Your task to perform on an android device: show emergency info Image 0: 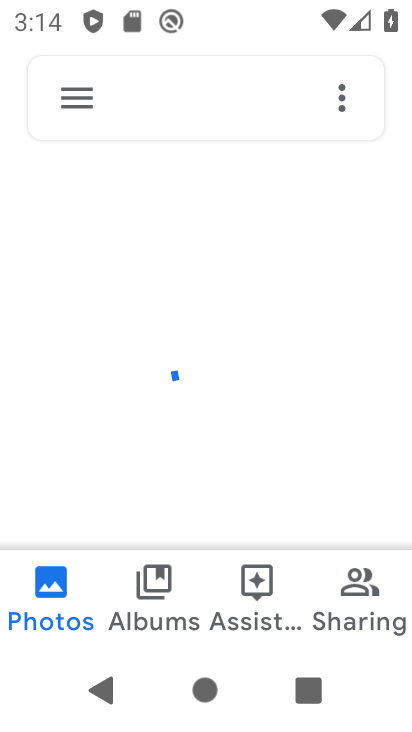
Step 0: press back button
Your task to perform on an android device: show emergency info Image 1: 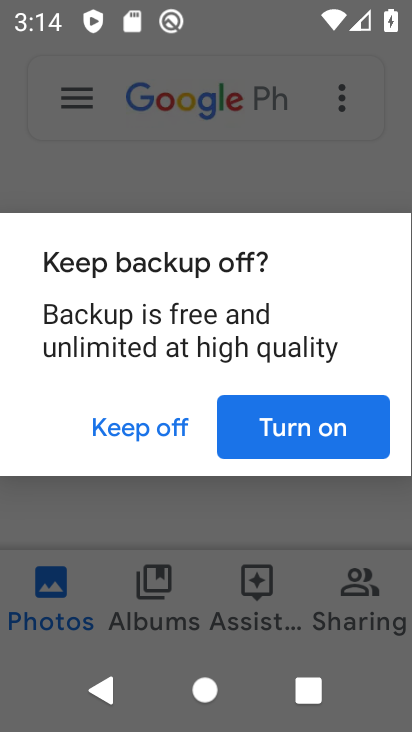
Step 1: press back button
Your task to perform on an android device: show emergency info Image 2: 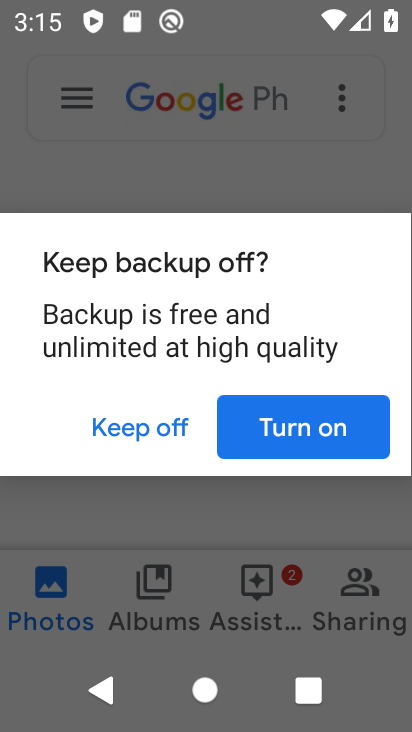
Step 2: press home button
Your task to perform on an android device: show emergency info Image 3: 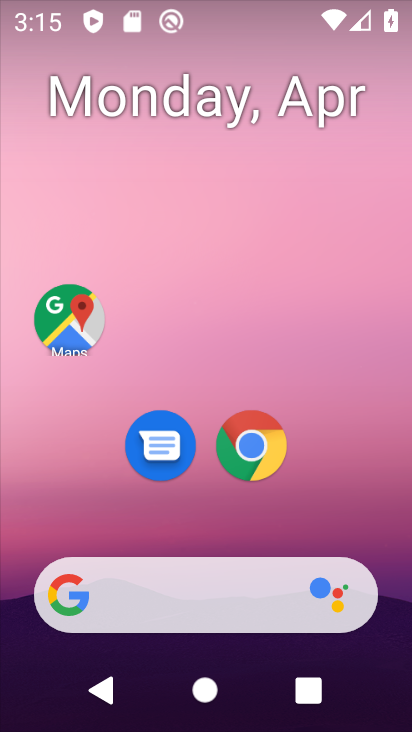
Step 3: drag from (228, 550) to (361, 40)
Your task to perform on an android device: show emergency info Image 4: 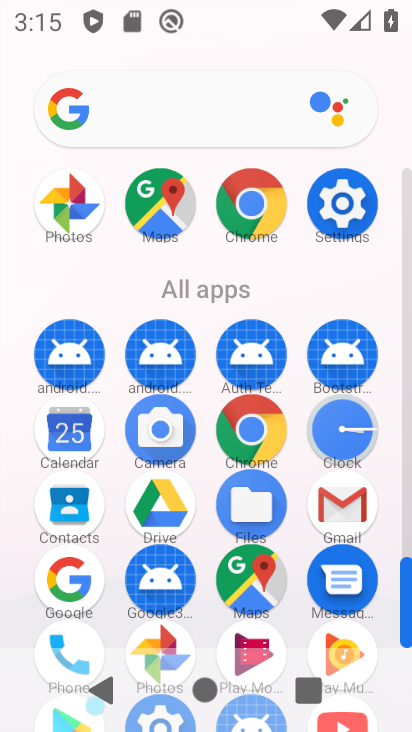
Step 4: click (350, 179)
Your task to perform on an android device: show emergency info Image 5: 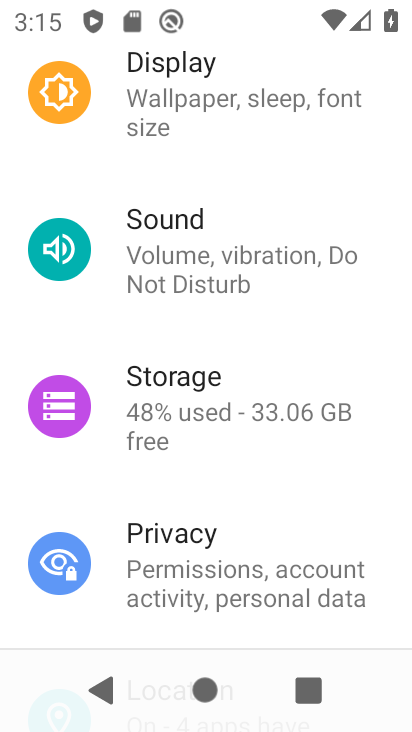
Step 5: drag from (271, 400) to (330, 181)
Your task to perform on an android device: show emergency info Image 6: 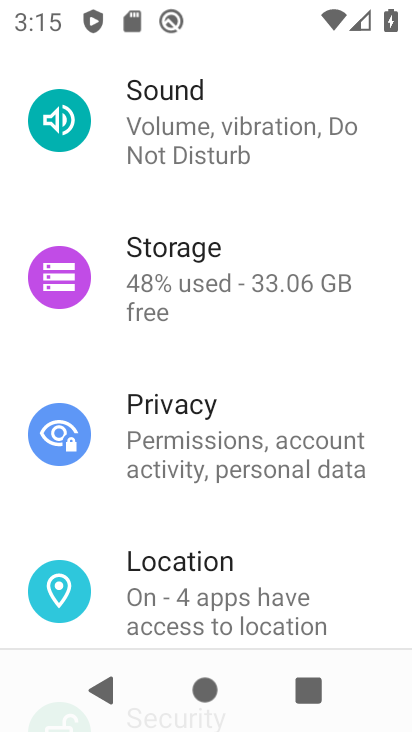
Step 6: drag from (280, 470) to (331, 258)
Your task to perform on an android device: show emergency info Image 7: 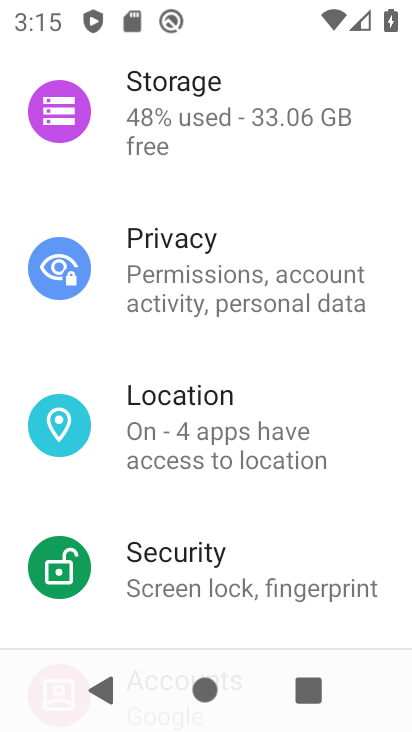
Step 7: drag from (242, 597) to (341, 155)
Your task to perform on an android device: show emergency info Image 8: 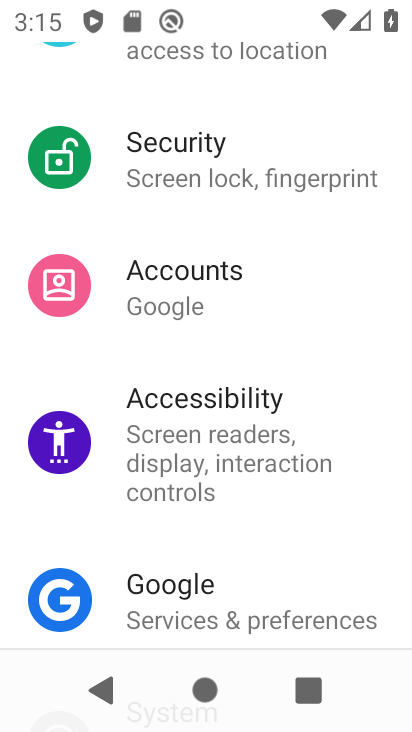
Step 8: drag from (251, 610) to (300, 309)
Your task to perform on an android device: show emergency info Image 9: 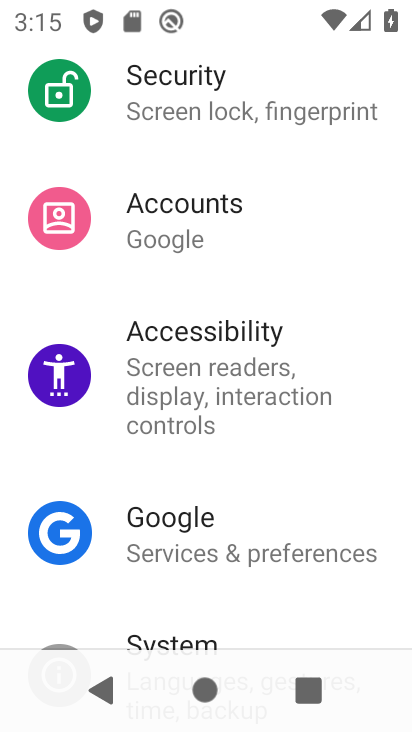
Step 9: drag from (262, 522) to (310, 251)
Your task to perform on an android device: show emergency info Image 10: 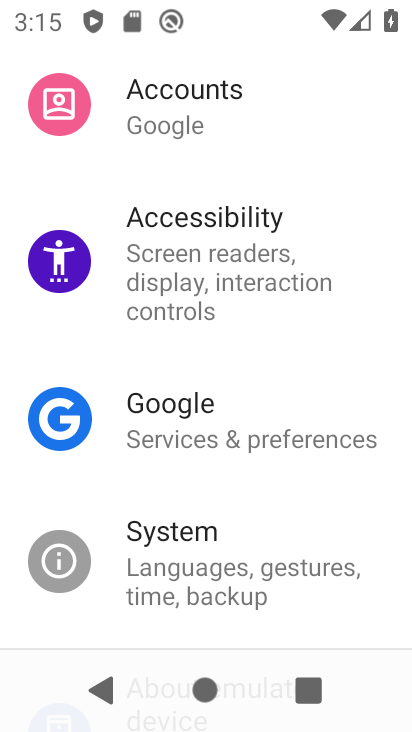
Step 10: drag from (219, 440) to (313, 114)
Your task to perform on an android device: show emergency info Image 11: 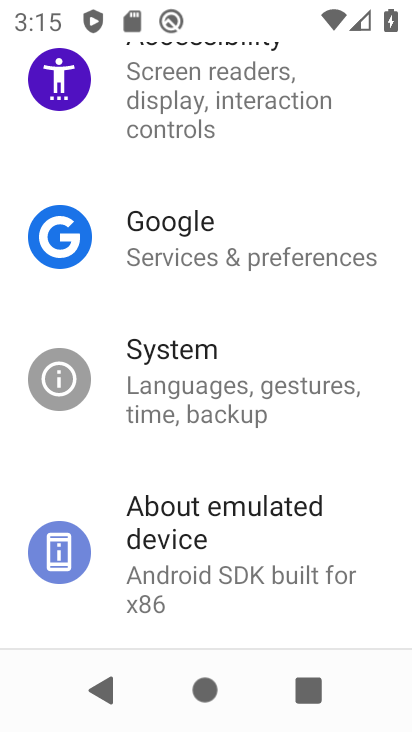
Step 11: drag from (312, 239) to (295, 668)
Your task to perform on an android device: show emergency info Image 12: 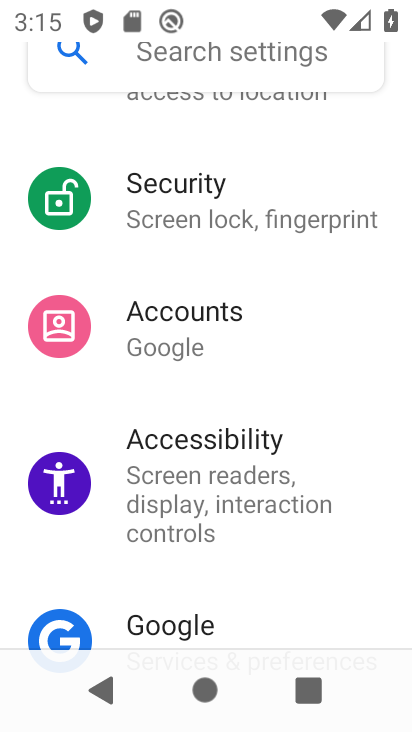
Step 12: click (181, 103)
Your task to perform on an android device: show emergency info Image 13: 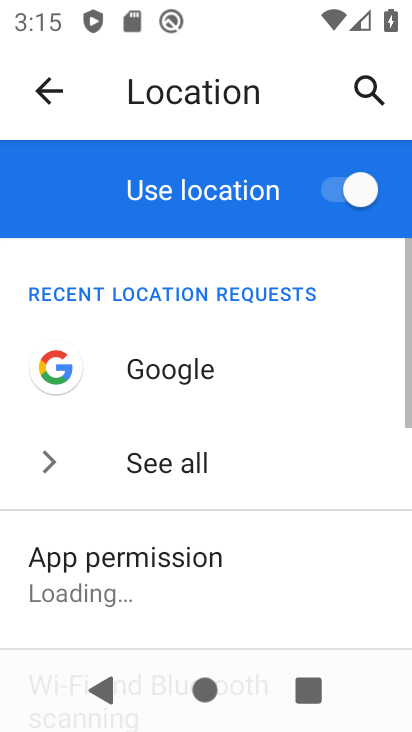
Step 13: task complete